Your task to perform on an android device: toggle notifications settings in the gmail app Image 0: 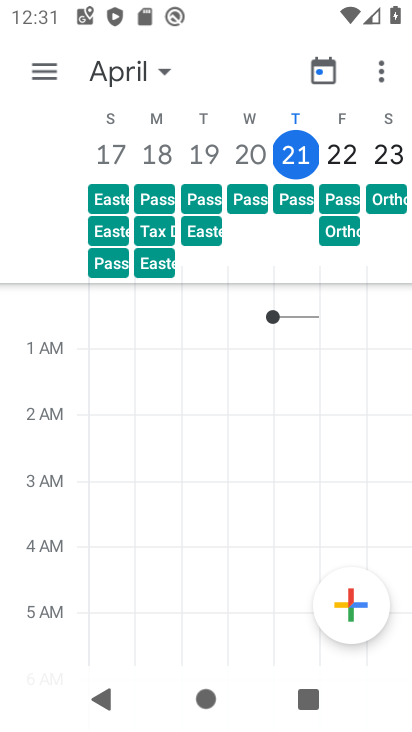
Step 0: press home button
Your task to perform on an android device: toggle notifications settings in the gmail app Image 1: 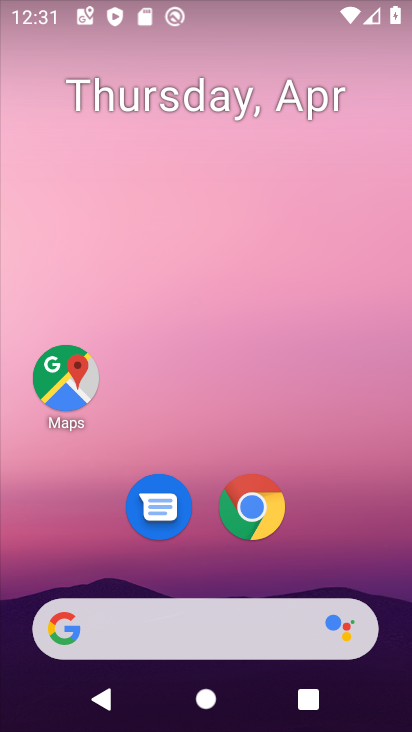
Step 1: drag from (350, 551) to (311, 42)
Your task to perform on an android device: toggle notifications settings in the gmail app Image 2: 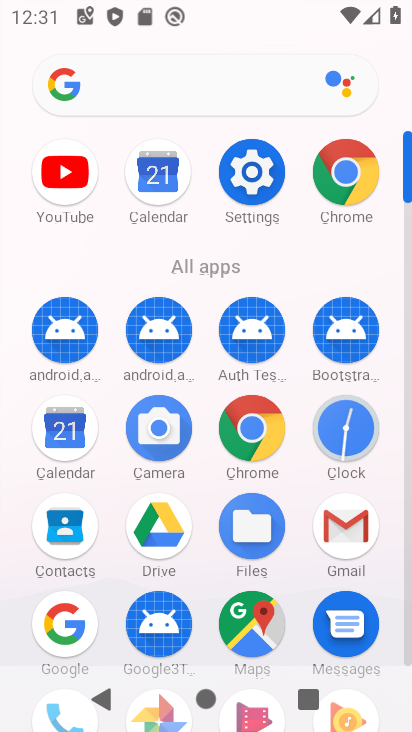
Step 2: click (345, 530)
Your task to perform on an android device: toggle notifications settings in the gmail app Image 3: 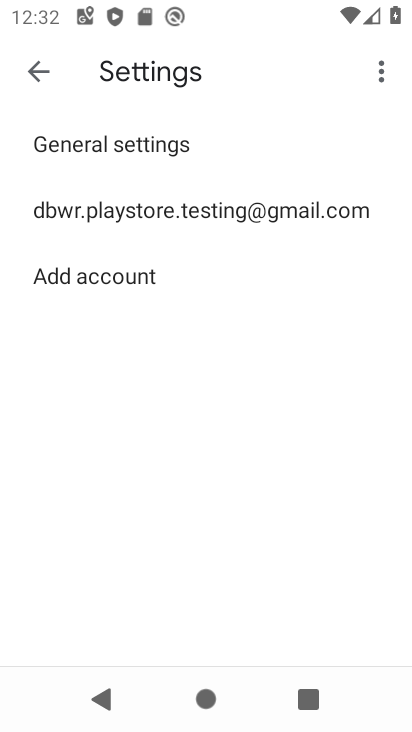
Step 3: click (251, 217)
Your task to perform on an android device: toggle notifications settings in the gmail app Image 4: 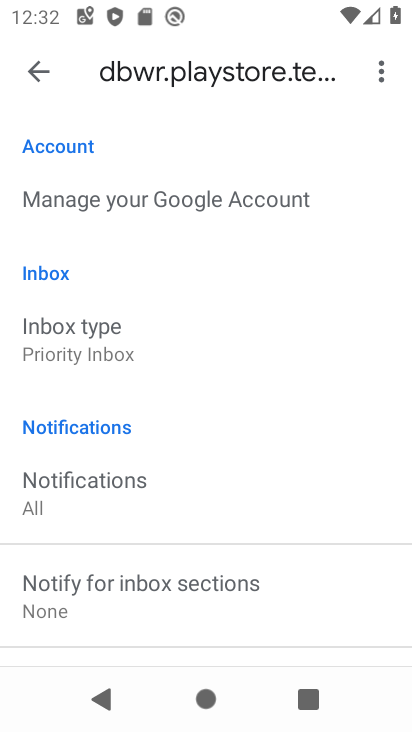
Step 4: drag from (118, 529) to (211, 398)
Your task to perform on an android device: toggle notifications settings in the gmail app Image 5: 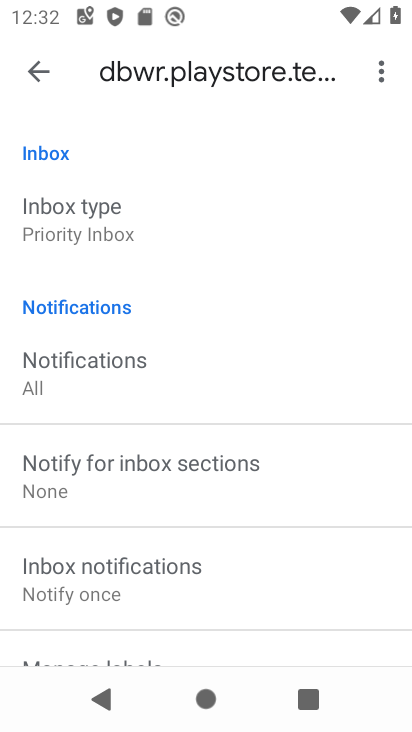
Step 5: drag from (144, 601) to (218, 414)
Your task to perform on an android device: toggle notifications settings in the gmail app Image 6: 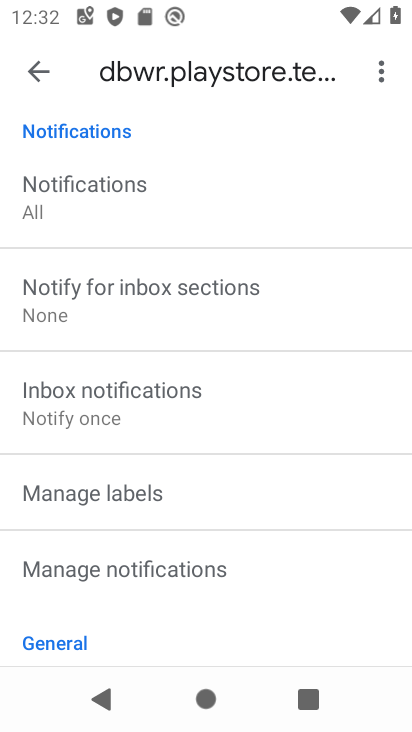
Step 6: click (161, 573)
Your task to perform on an android device: toggle notifications settings in the gmail app Image 7: 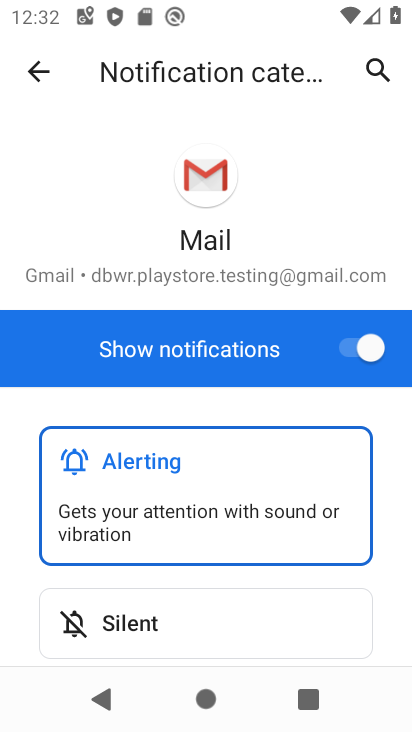
Step 7: click (362, 343)
Your task to perform on an android device: toggle notifications settings in the gmail app Image 8: 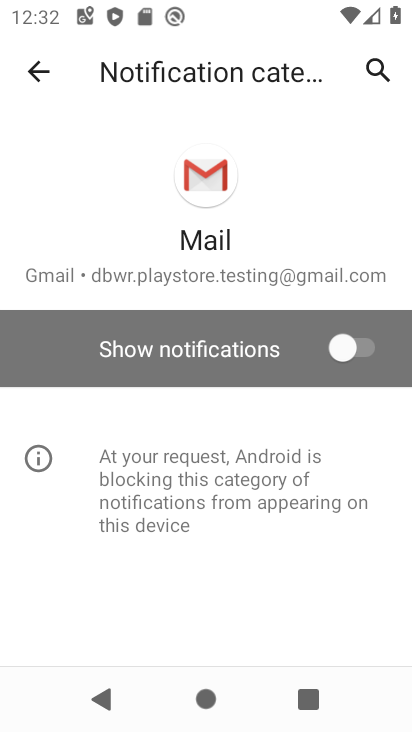
Step 8: task complete